Your task to perform on an android device: turn off translation in the chrome app Image 0: 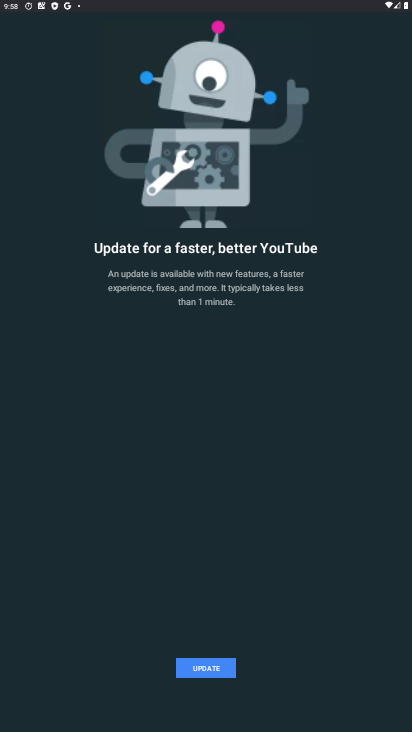
Step 0: press home button
Your task to perform on an android device: turn off translation in the chrome app Image 1: 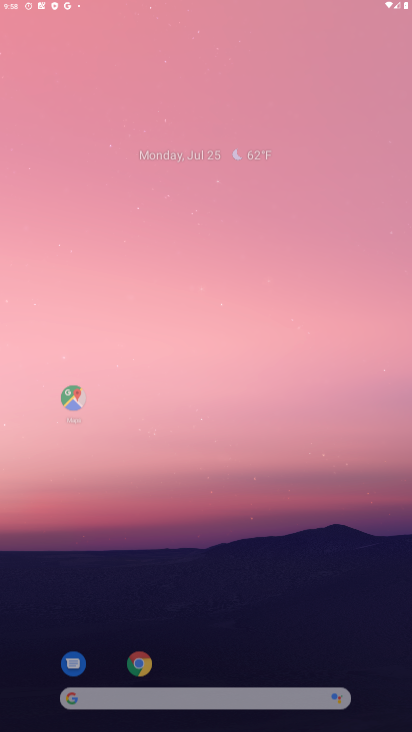
Step 1: drag from (215, 423) to (246, 294)
Your task to perform on an android device: turn off translation in the chrome app Image 2: 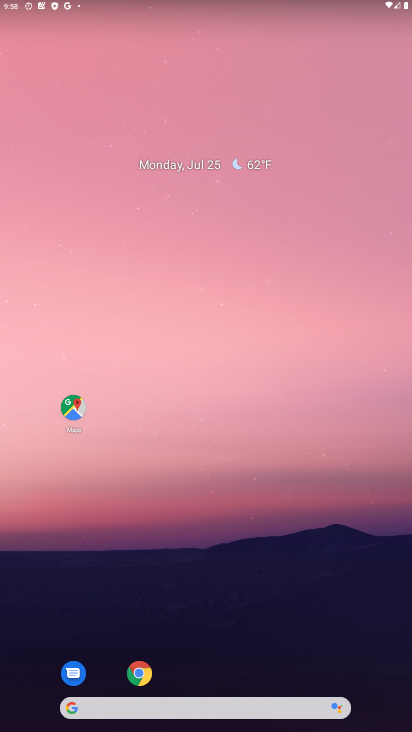
Step 2: drag from (229, 606) to (282, 208)
Your task to perform on an android device: turn off translation in the chrome app Image 3: 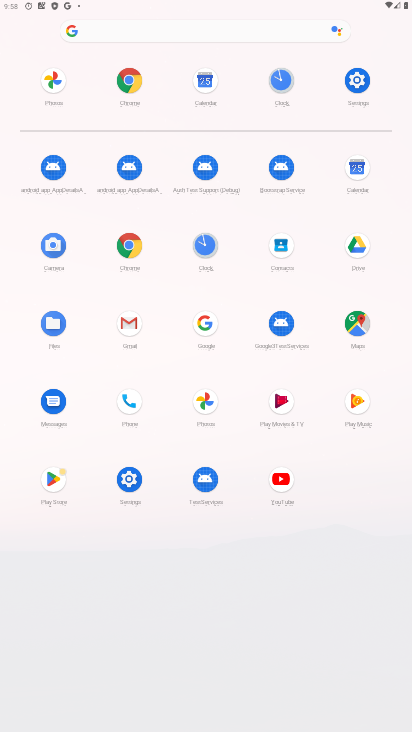
Step 3: drag from (240, 549) to (262, 283)
Your task to perform on an android device: turn off translation in the chrome app Image 4: 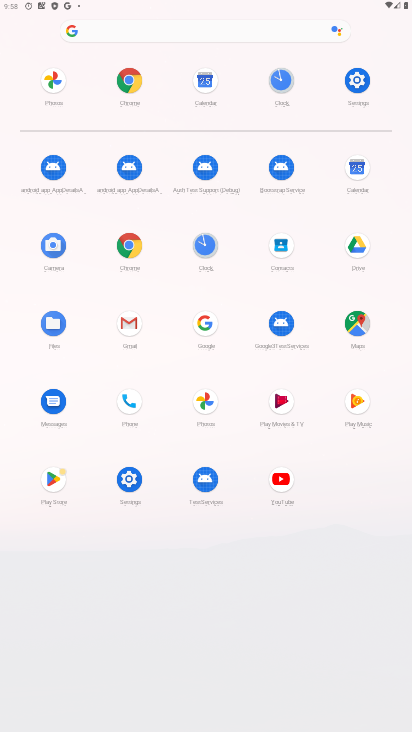
Step 4: click (130, 245)
Your task to perform on an android device: turn off translation in the chrome app Image 5: 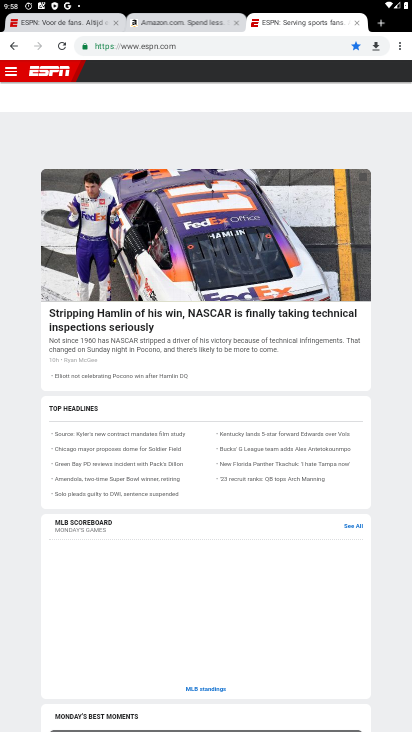
Step 5: drag from (395, 38) to (324, 302)
Your task to perform on an android device: turn off translation in the chrome app Image 6: 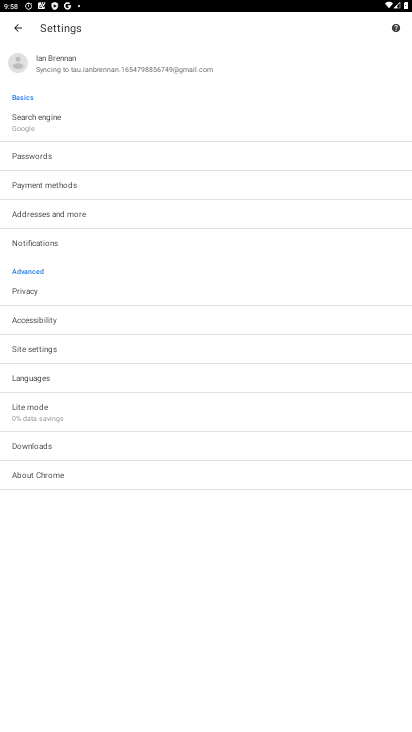
Step 6: drag from (160, 570) to (331, 223)
Your task to perform on an android device: turn off translation in the chrome app Image 7: 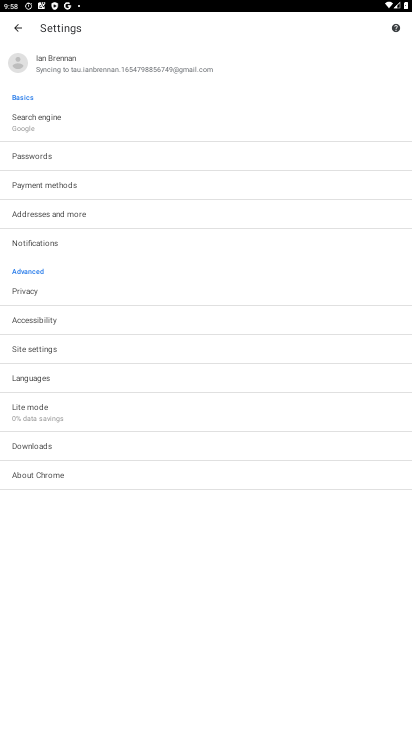
Step 7: click (49, 373)
Your task to perform on an android device: turn off translation in the chrome app Image 8: 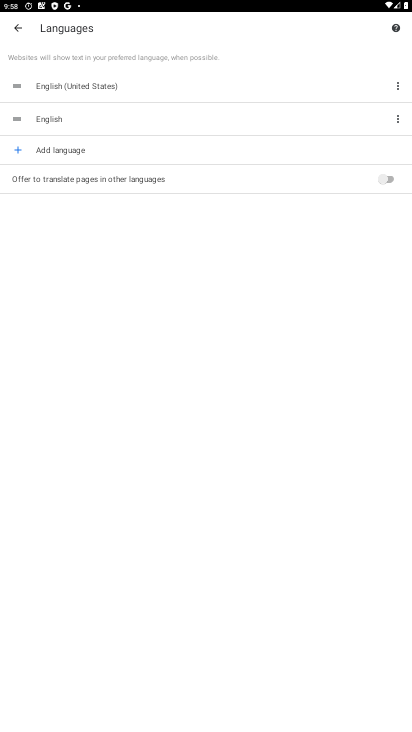
Step 8: task complete